Your task to perform on an android device: turn on bluetooth scan Image 0: 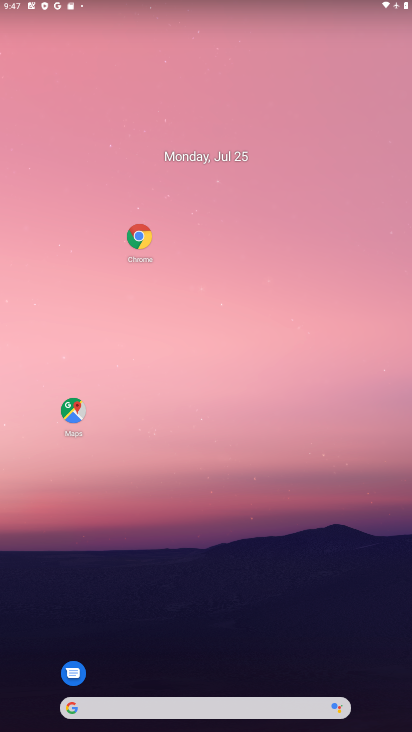
Step 0: drag from (276, 671) to (263, 36)
Your task to perform on an android device: turn on bluetooth scan Image 1: 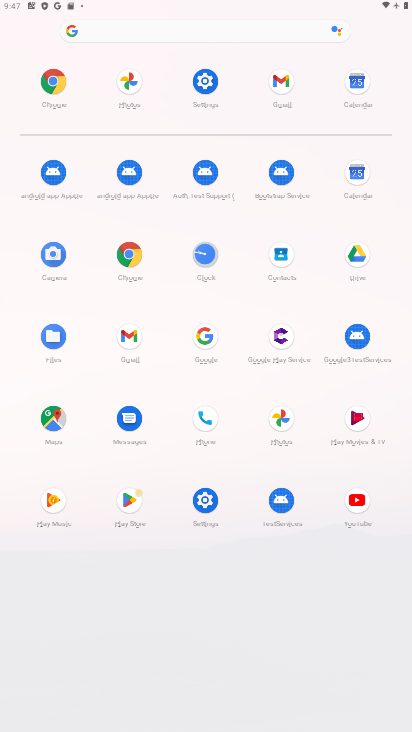
Step 1: click (214, 111)
Your task to perform on an android device: turn on bluetooth scan Image 2: 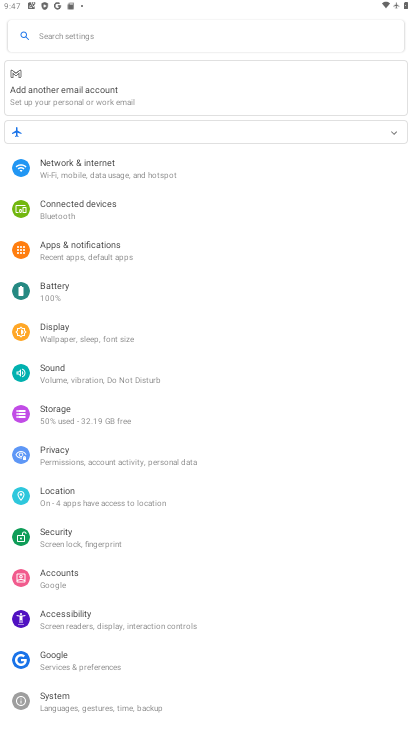
Step 2: click (148, 177)
Your task to perform on an android device: turn on bluetooth scan Image 3: 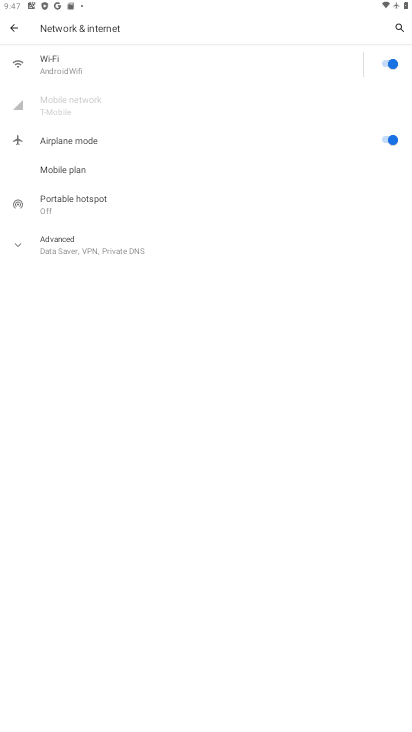
Step 3: task complete